Your task to perform on an android device: turn off improve location accuracy Image 0: 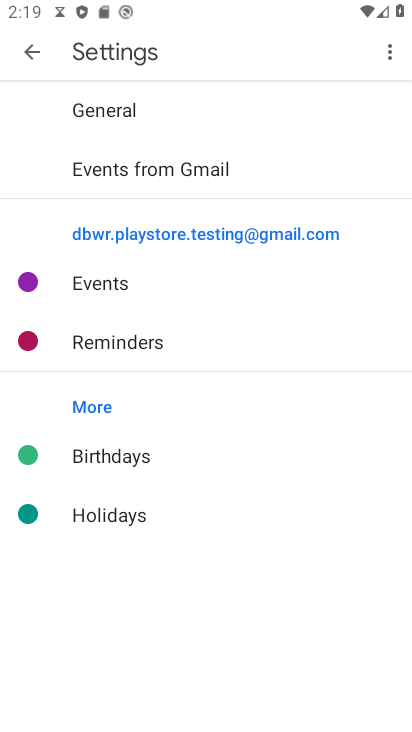
Step 0: press home button
Your task to perform on an android device: turn off improve location accuracy Image 1: 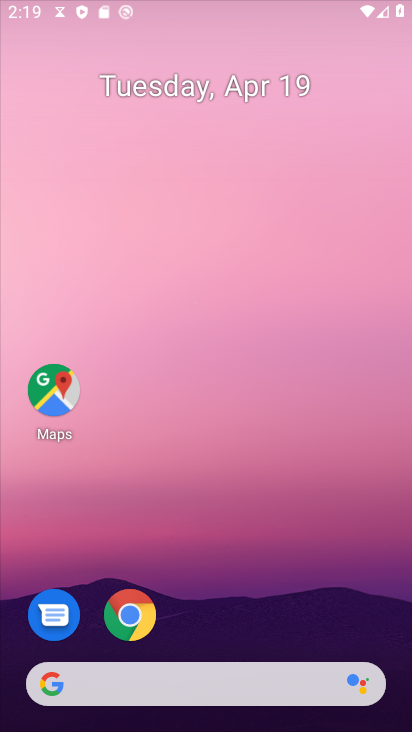
Step 1: drag from (202, 608) to (271, 110)
Your task to perform on an android device: turn off improve location accuracy Image 2: 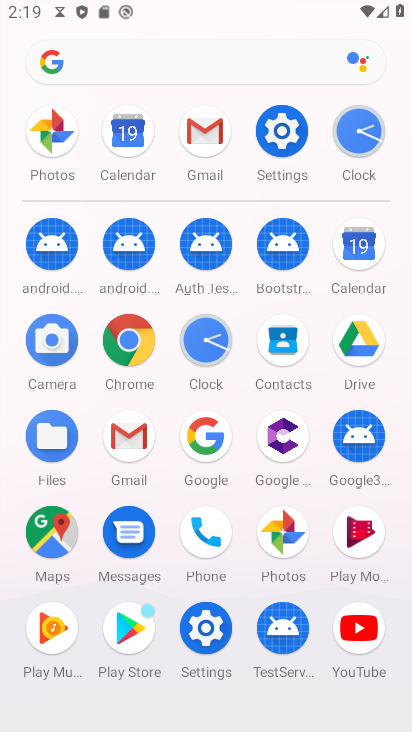
Step 2: click (199, 626)
Your task to perform on an android device: turn off improve location accuracy Image 3: 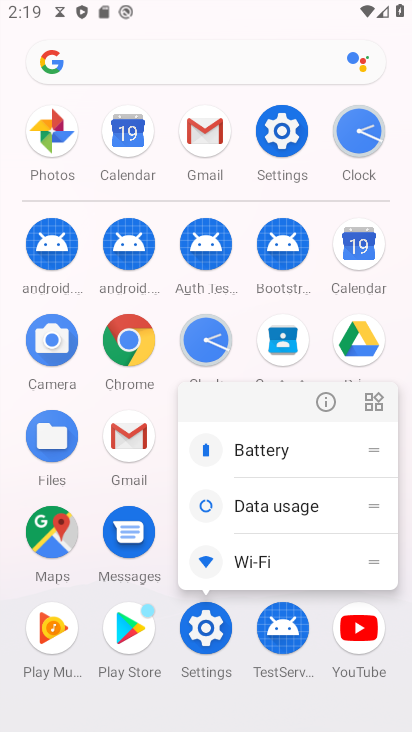
Step 3: click (315, 404)
Your task to perform on an android device: turn off improve location accuracy Image 4: 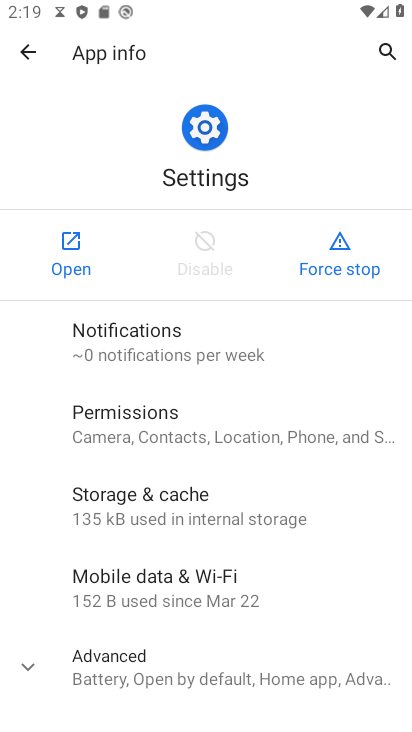
Step 4: click (56, 228)
Your task to perform on an android device: turn off improve location accuracy Image 5: 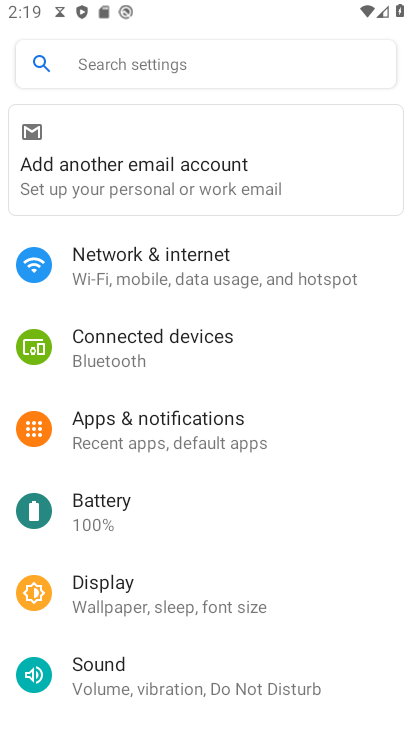
Step 5: drag from (177, 655) to (302, 130)
Your task to perform on an android device: turn off improve location accuracy Image 6: 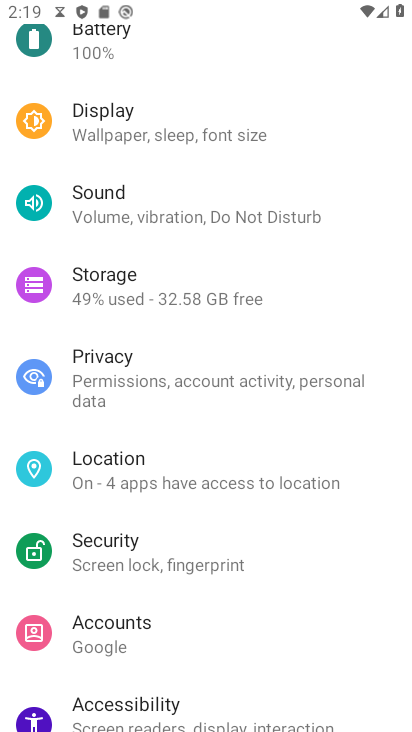
Step 6: click (164, 477)
Your task to perform on an android device: turn off improve location accuracy Image 7: 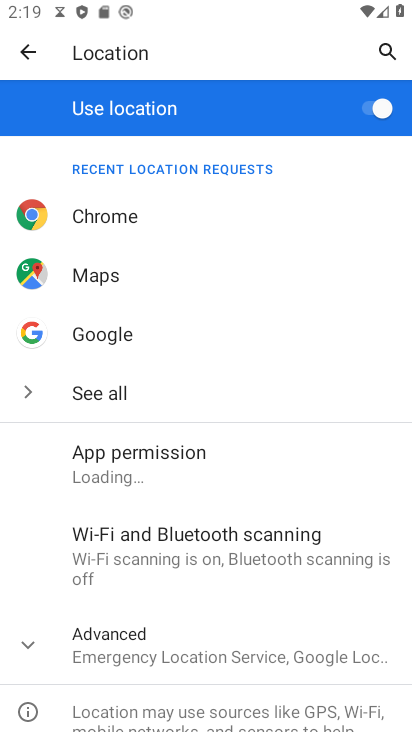
Step 7: drag from (196, 566) to (250, 303)
Your task to perform on an android device: turn off improve location accuracy Image 8: 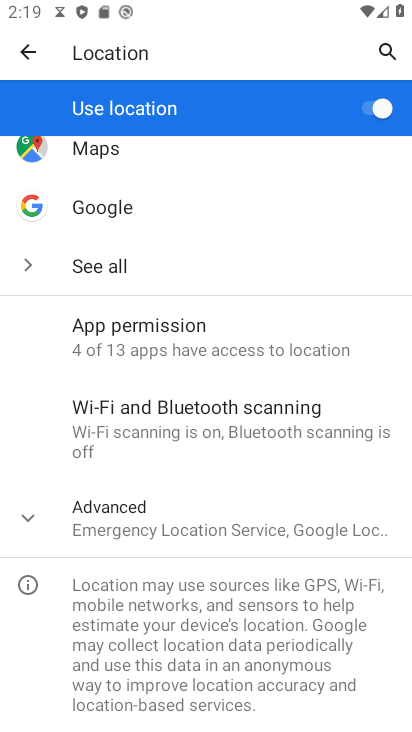
Step 8: click (153, 523)
Your task to perform on an android device: turn off improve location accuracy Image 9: 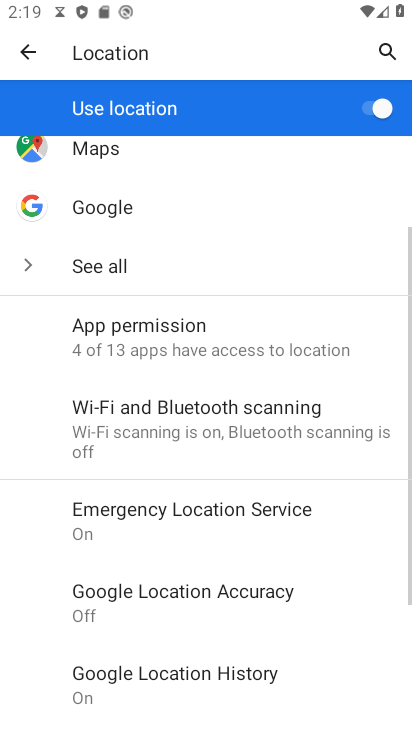
Step 9: drag from (259, 614) to (301, 345)
Your task to perform on an android device: turn off improve location accuracy Image 10: 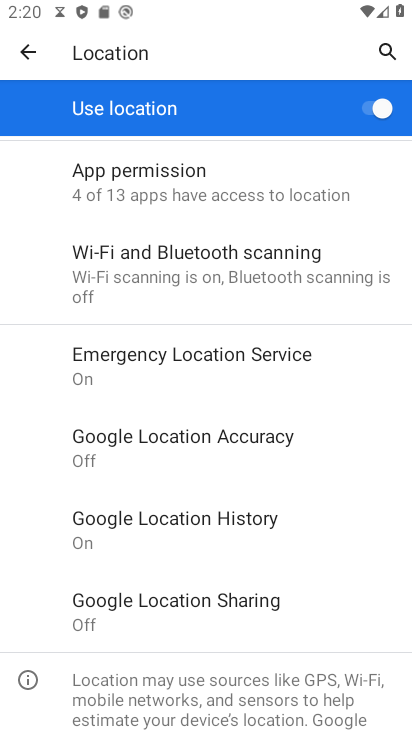
Step 10: click (187, 446)
Your task to perform on an android device: turn off improve location accuracy Image 11: 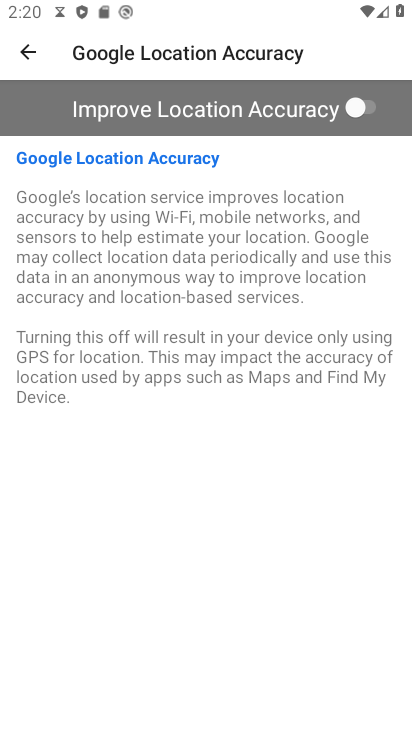
Step 11: task complete